Your task to perform on an android device: turn off data saver in the chrome app Image 0: 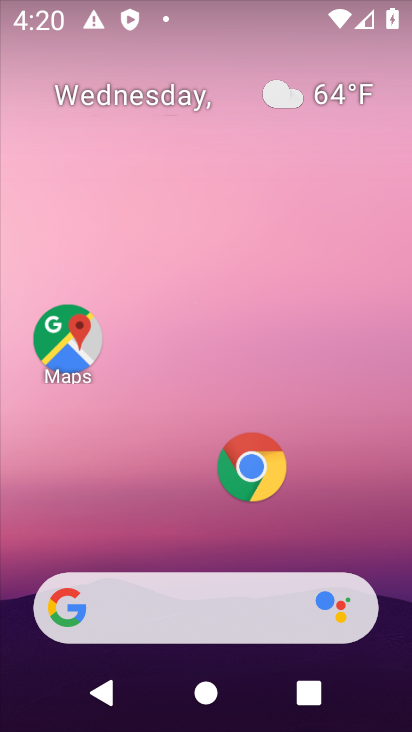
Step 0: click (263, 461)
Your task to perform on an android device: turn off data saver in the chrome app Image 1: 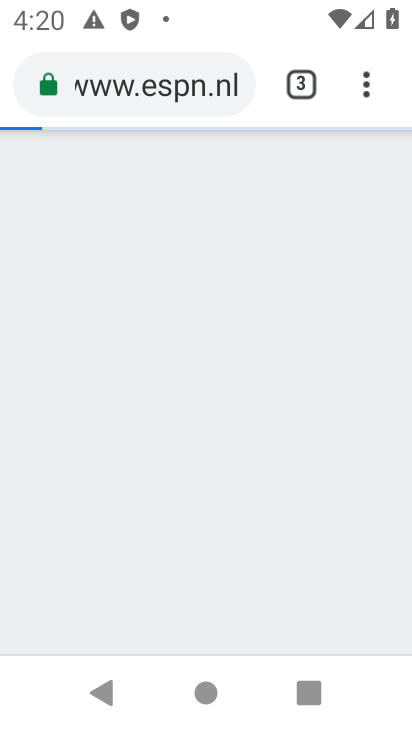
Step 1: task complete